Your task to perform on an android device: Open Reddit.com Image 0: 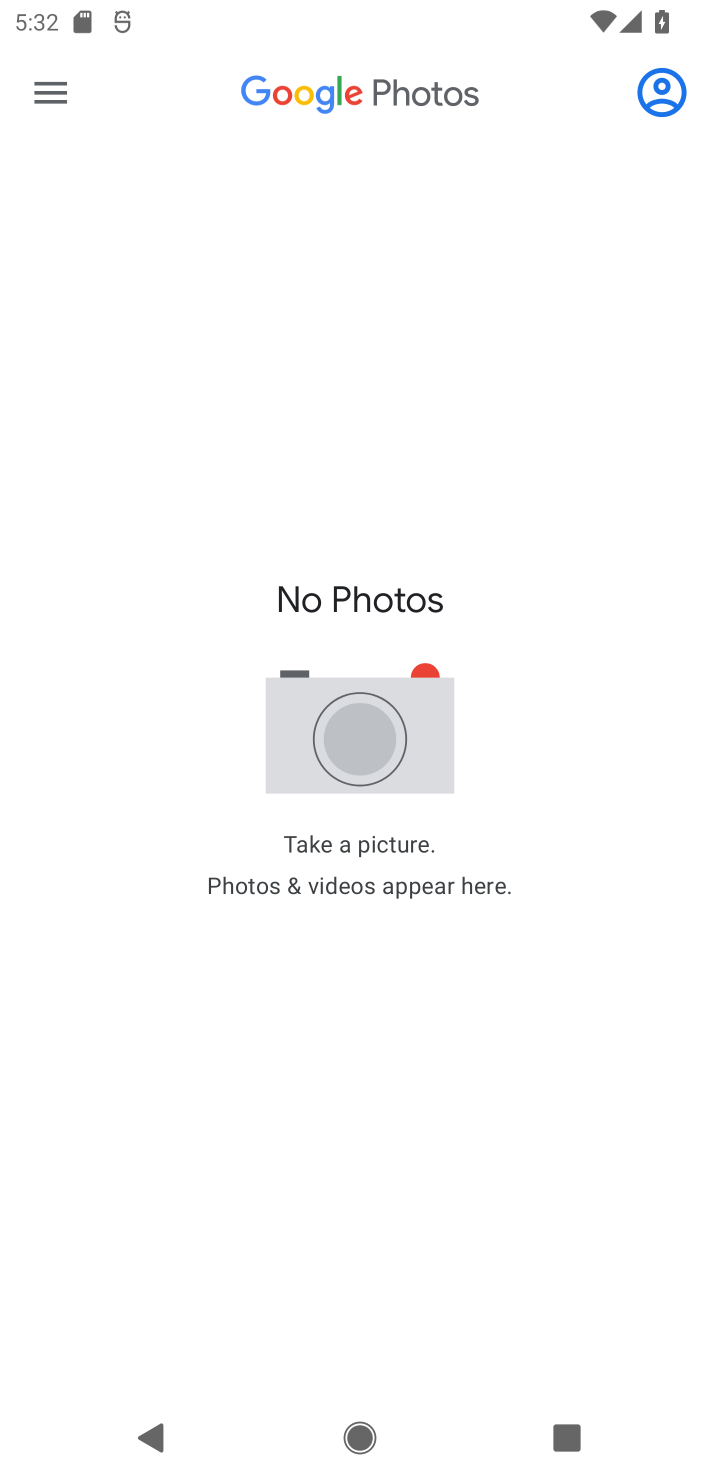
Step 0: press home button
Your task to perform on an android device: Open Reddit.com Image 1: 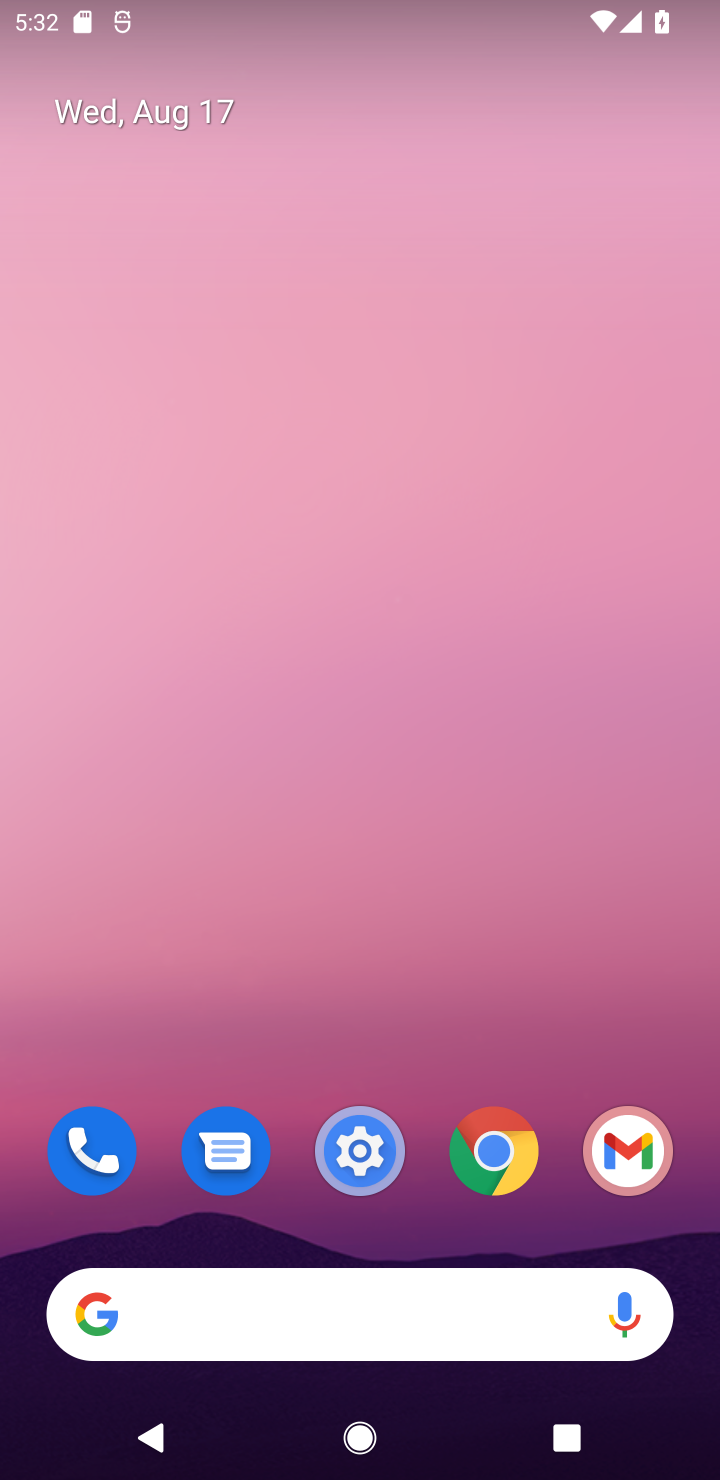
Step 1: click (473, 1190)
Your task to perform on an android device: Open Reddit.com Image 2: 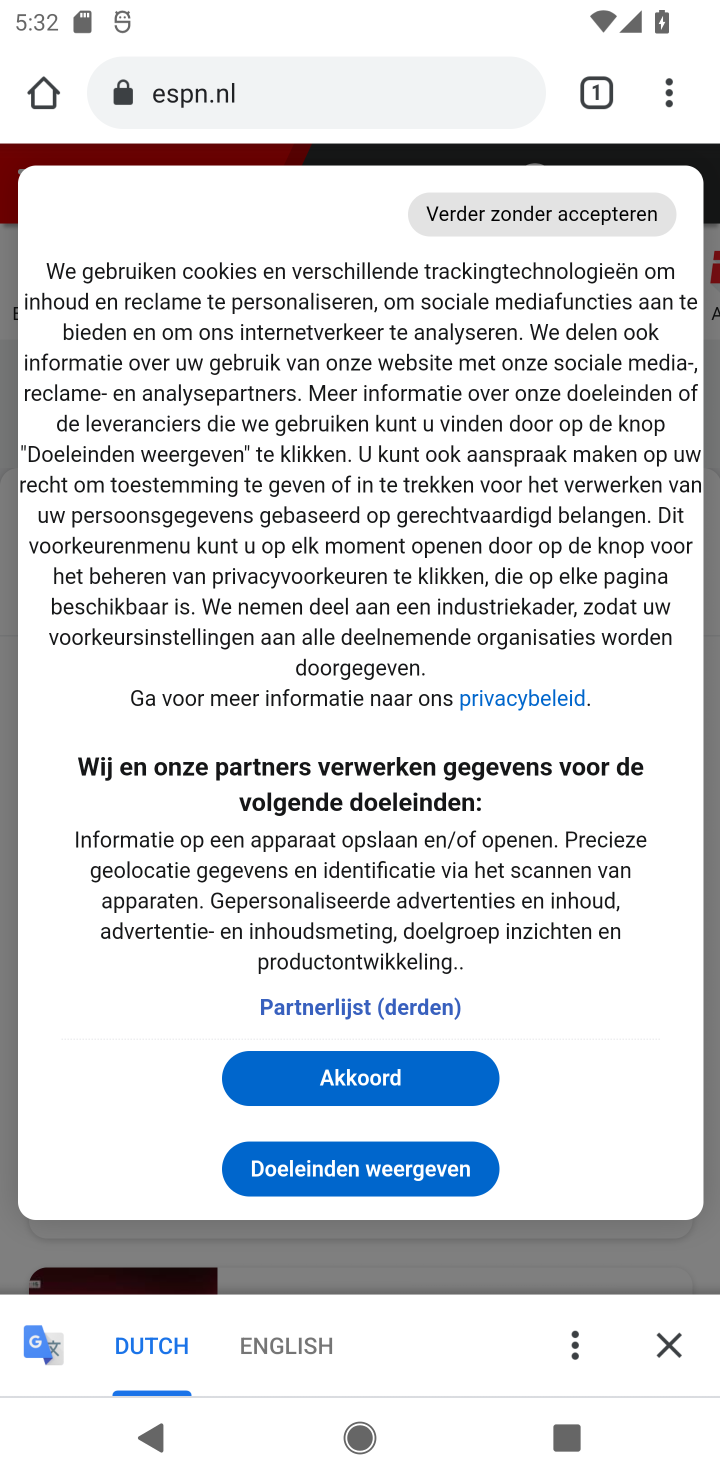
Step 2: click (357, 1091)
Your task to perform on an android device: Open Reddit.com Image 3: 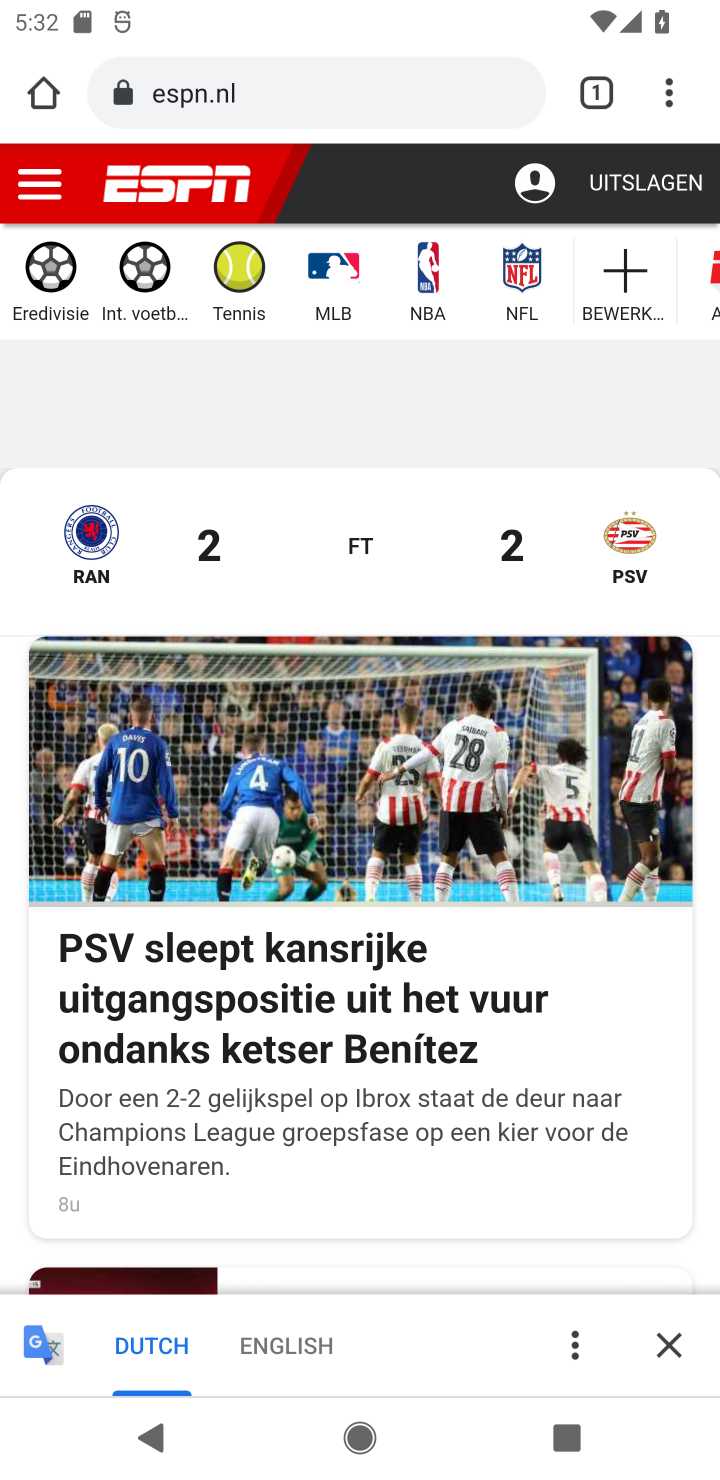
Step 3: click (408, 93)
Your task to perform on an android device: Open Reddit.com Image 4: 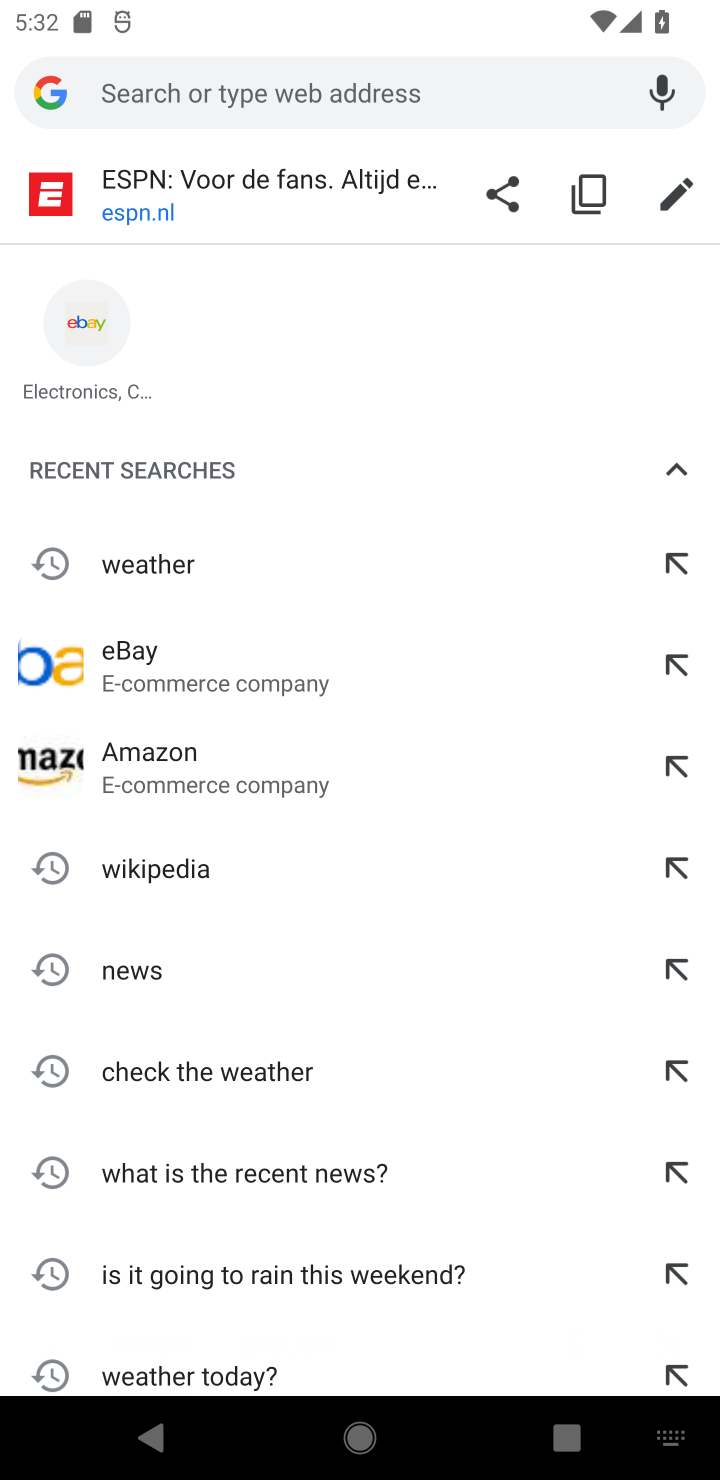
Step 4: type "reddit.com"
Your task to perform on an android device: Open Reddit.com Image 5: 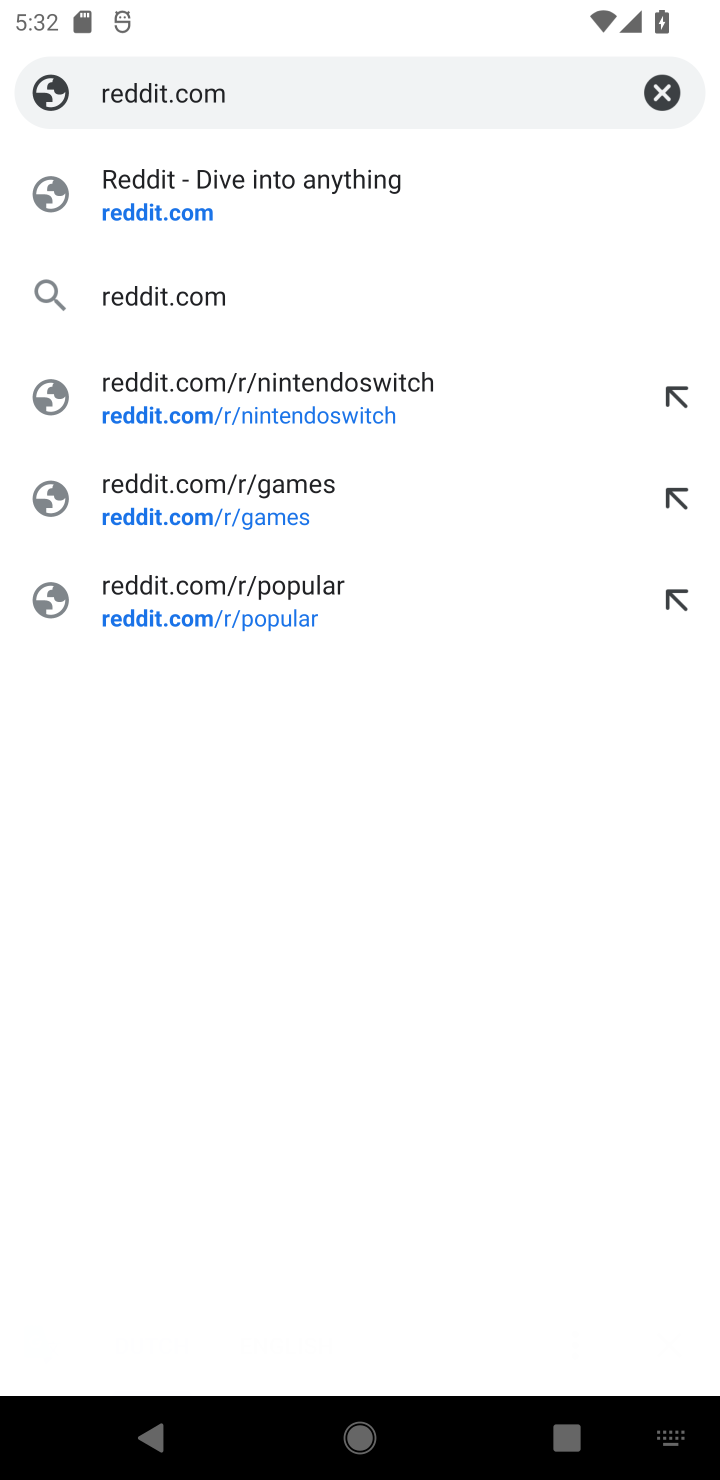
Step 5: click (191, 245)
Your task to perform on an android device: Open Reddit.com Image 6: 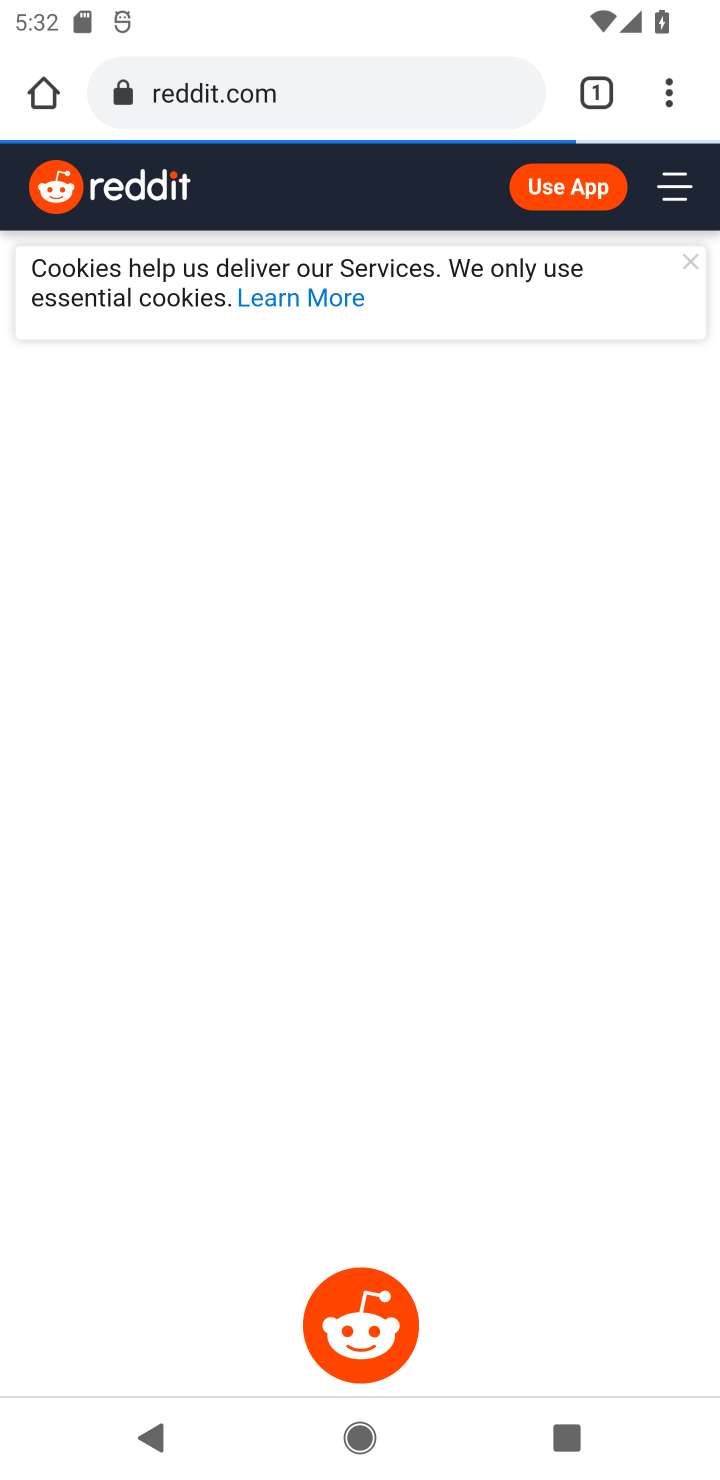
Step 6: task complete